Your task to perform on an android device: show emergency info Image 0: 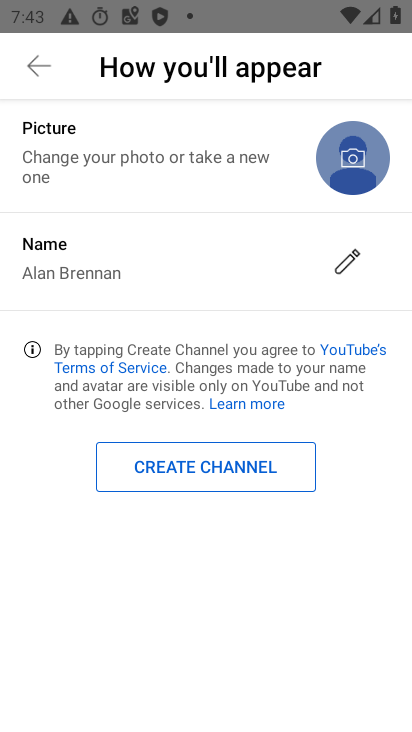
Step 0: press home button
Your task to perform on an android device: show emergency info Image 1: 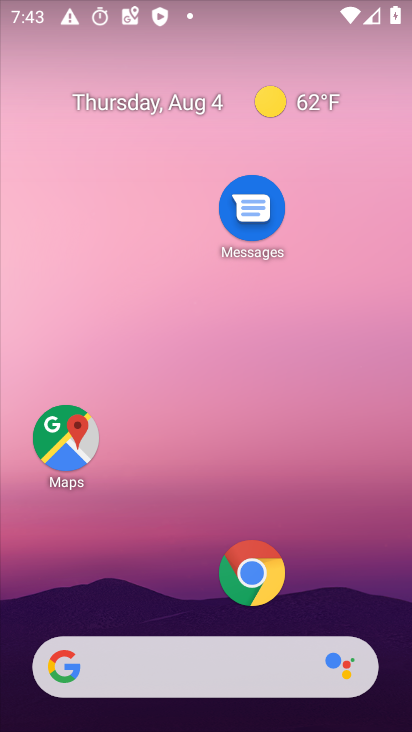
Step 1: drag from (184, 604) to (209, 97)
Your task to perform on an android device: show emergency info Image 2: 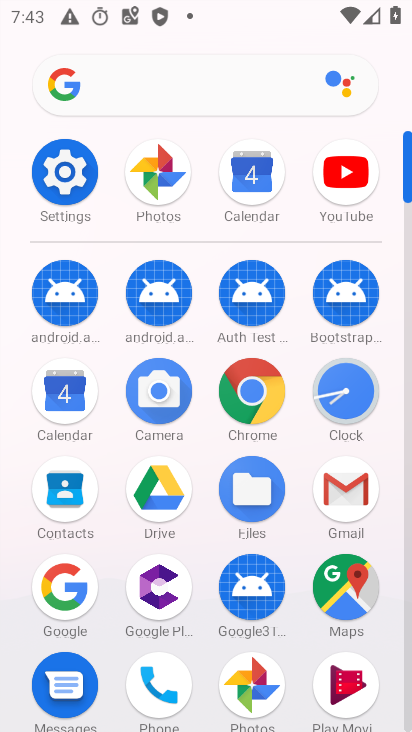
Step 2: click (79, 167)
Your task to perform on an android device: show emergency info Image 3: 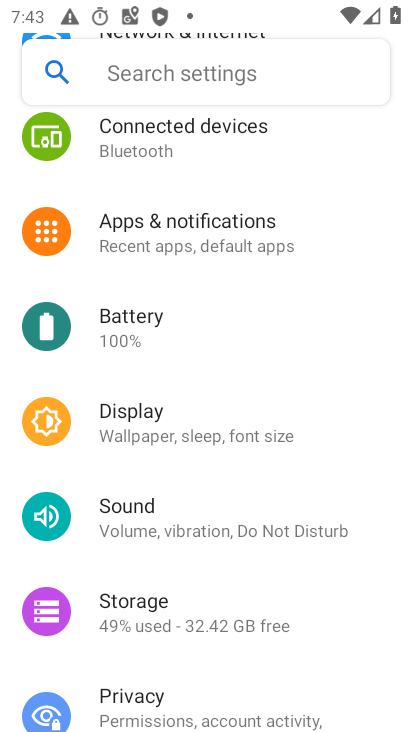
Step 3: drag from (273, 677) to (276, 215)
Your task to perform on an android device: show emergency info Image 4: 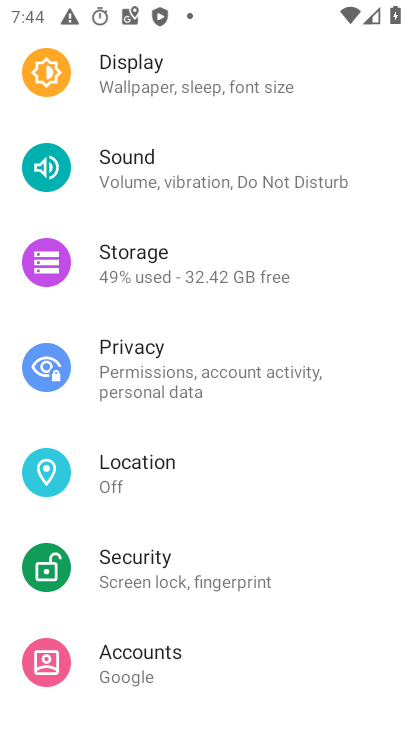
Step 4: drag from (284, 637) to (274, 185)
Your task to perform on an android device: show emergency info Image 5: 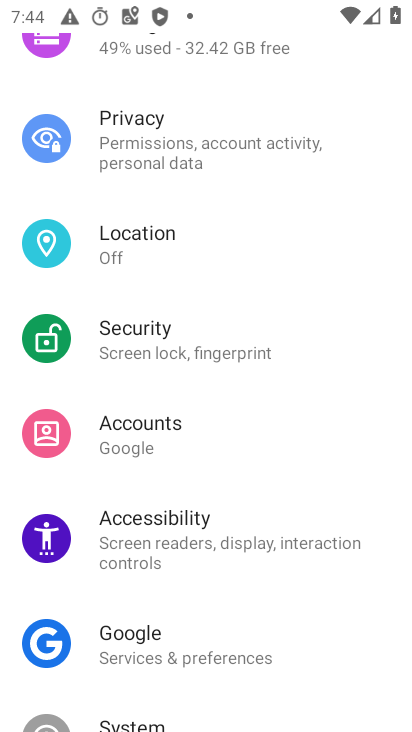
Step 5: drag from (301, 656) to (297, 234)
Your task to perform on an android device: show emergency info Image 6: 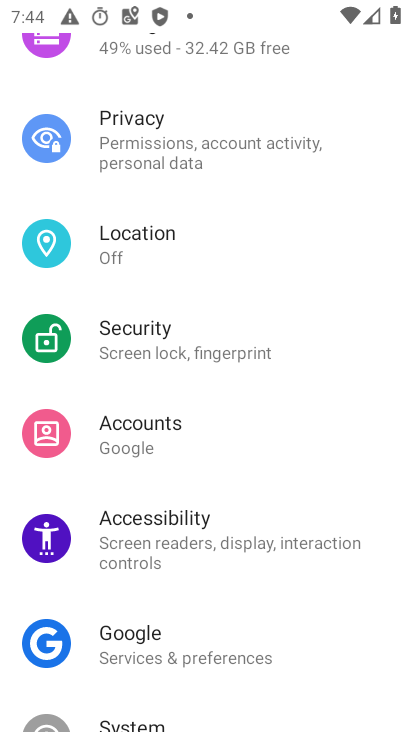
Step 6: drag from (329, 646) to (366, 227)
Your task to perform on an android device: show emergency info Image 7: 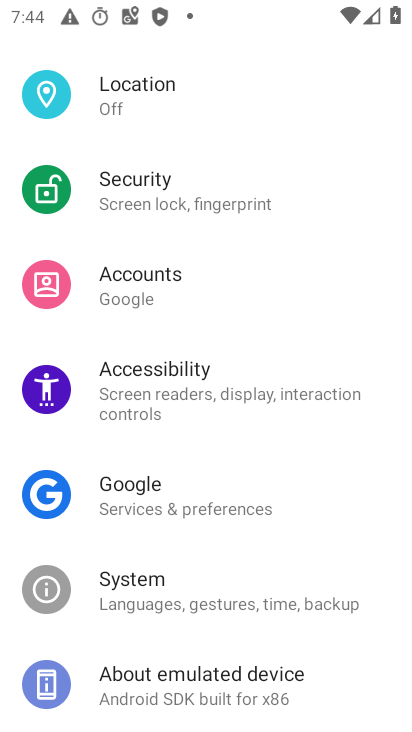
Step 7: click (153, 688)
Your task to perform on an android device: show emergency info Image 8: 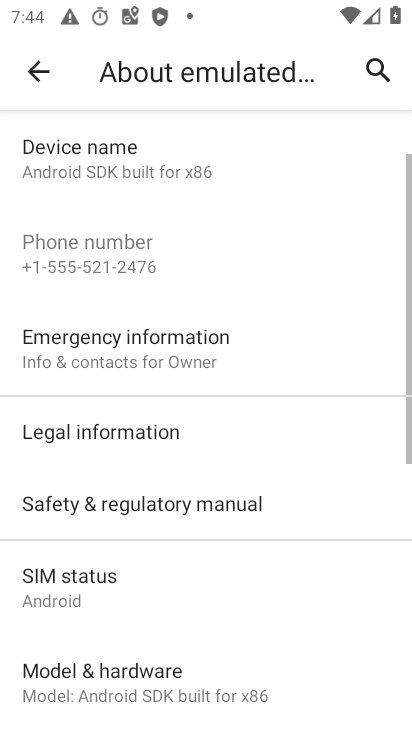
Step 8: click (112, 341)
Your task to perform on an android device: show emergency info Image 9: 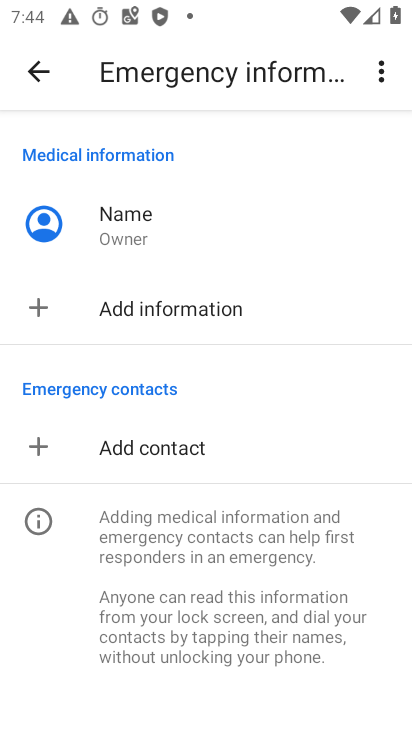
Step 9: task complete